Your task to perform on an android device: Open Reddit.com Image 0: 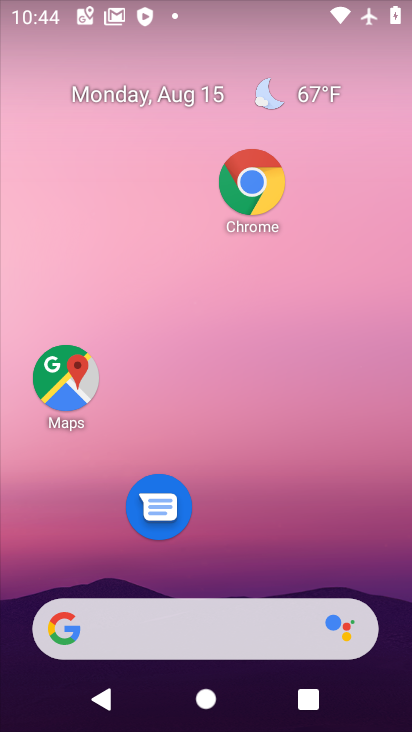
Step 0: drag from (306, 572) to (210, 28)
Your task to perform on an android device: Open Reddit.com Image 1: 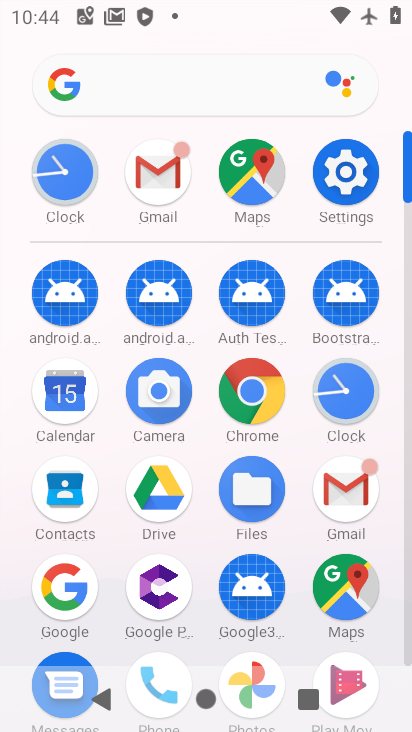
Step 1: click (241, 389)
Your task to perform on an android device: Open Reddit.com Image 2: 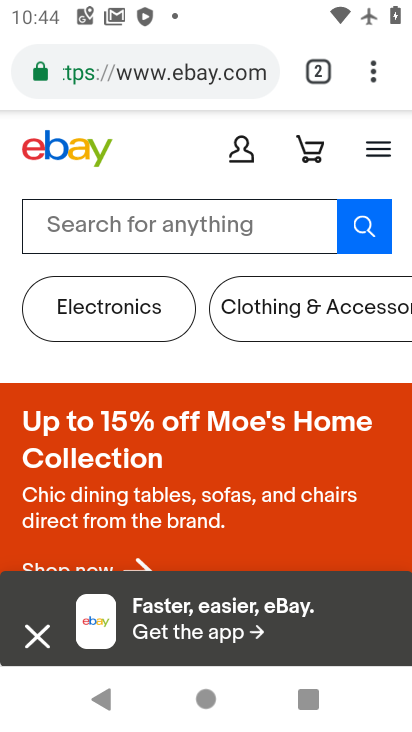
Step 2: click (374, 78)
Your task to perform on an android device: Open Reddit.com Image 3: 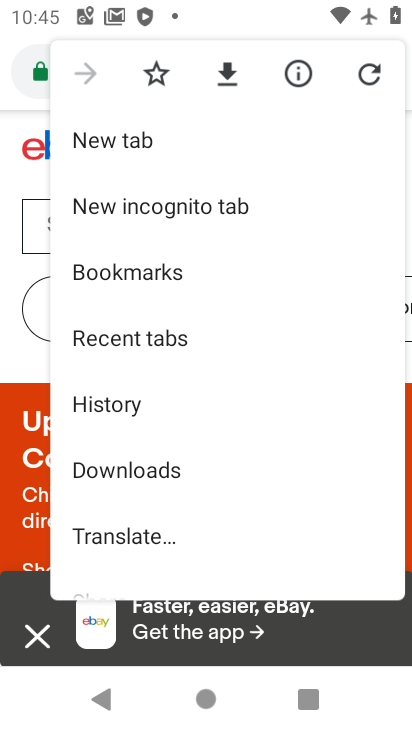
Step 3: drag from (201, 521) to (180, 148)
Your task to perform on an android device: Open Reddit.com Image 4: 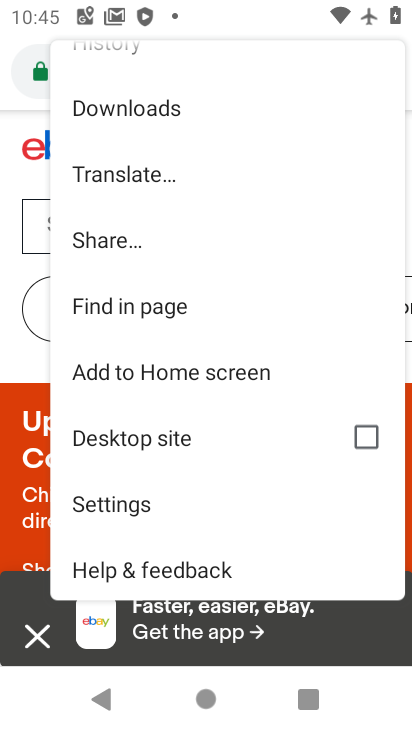
Step 4: click (32, 331)
Your task to perform on an android device: Open Reddit.com Image 5: 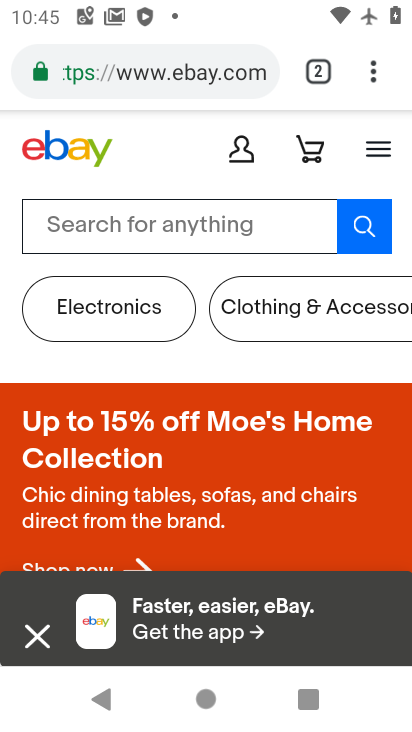
Step 5: click (177, 79)
Your task to perform on an android device: Open Reddit.com Image 6: 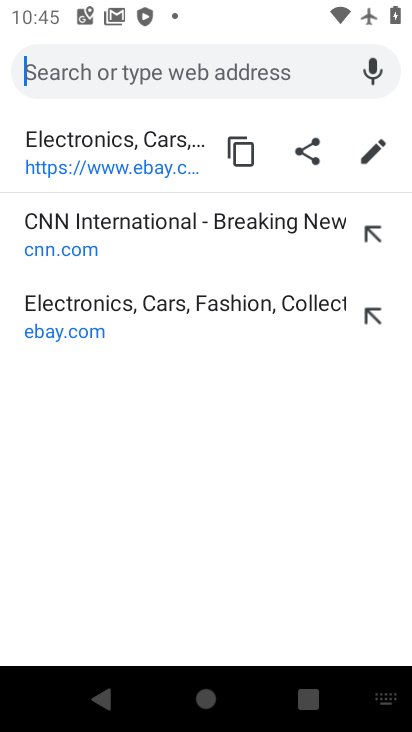
Step 6: type "reddit.com"
Your task to perform on an android device: Open Reddit.com Image 7: 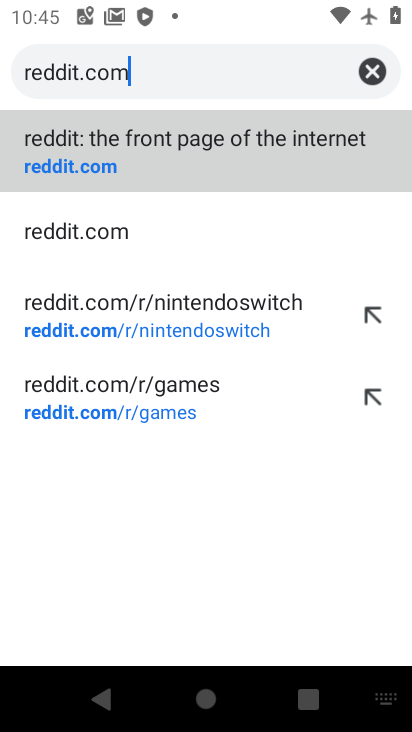
Step 7: click (155, 155)
Your task to perform on an android device: Open Reddit.com Image 8: 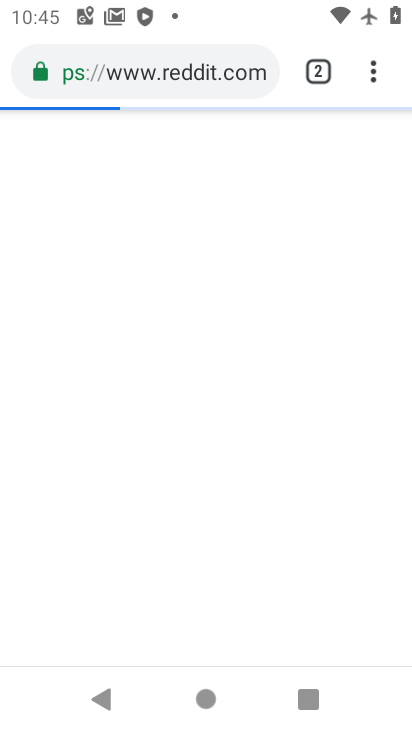
Step 8: task complete